Your task to perform on an android device: Go to Google Image 0: 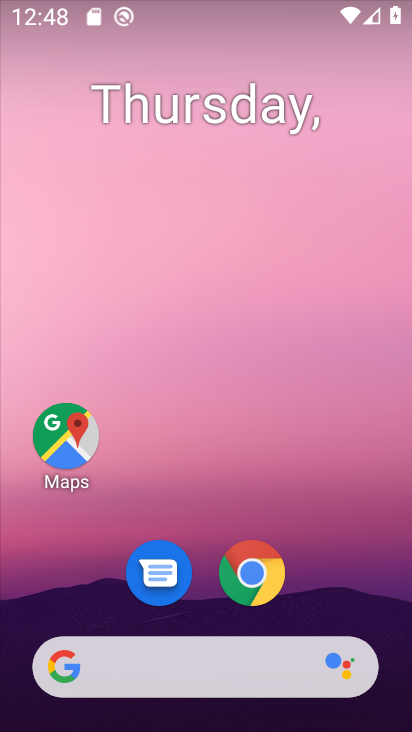
Step 0: drag from (337, 584) to (289, 194)
Your task to perform on an android device: Go to Google Image 1: 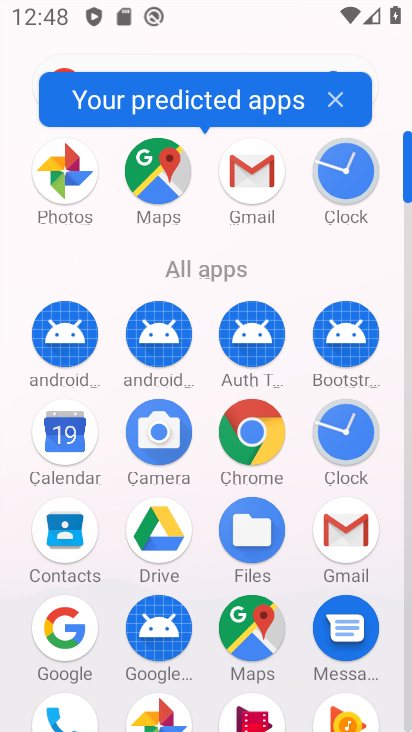
Step 1: drag from (205, 549) to (219, 183)
Your task to perform on an android device: Go to Google Image 2: 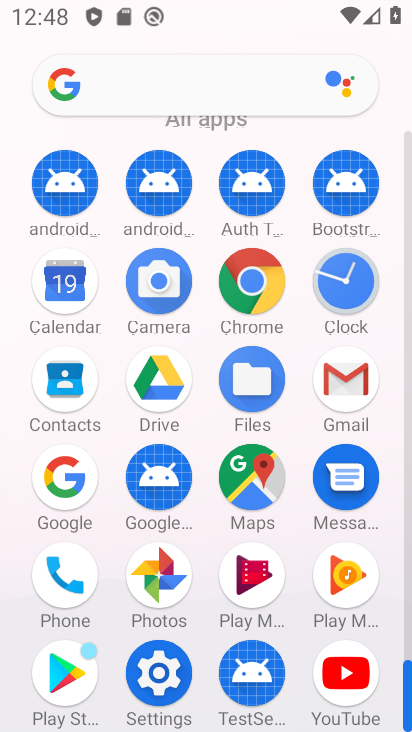
Step 2: click (61, 466)
Your task to perform on an android device: Go to Google Image 3: 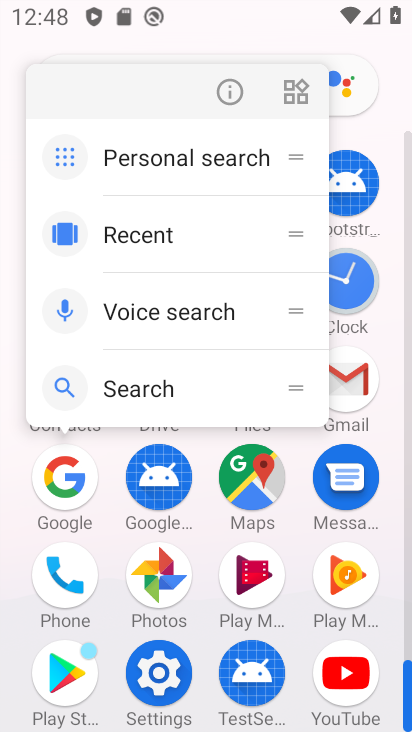
Step 3: click (61, 466)
Your task to perform on an android device: Go to Google Image 4: 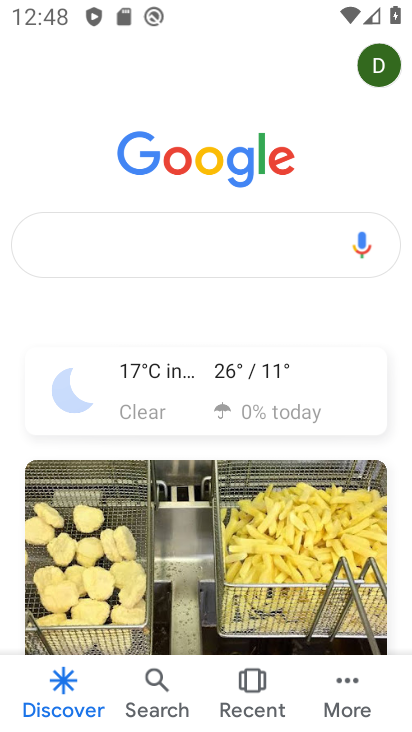
Step 4: task complete